Your task to perform on an android device: turn on location history Image 0: 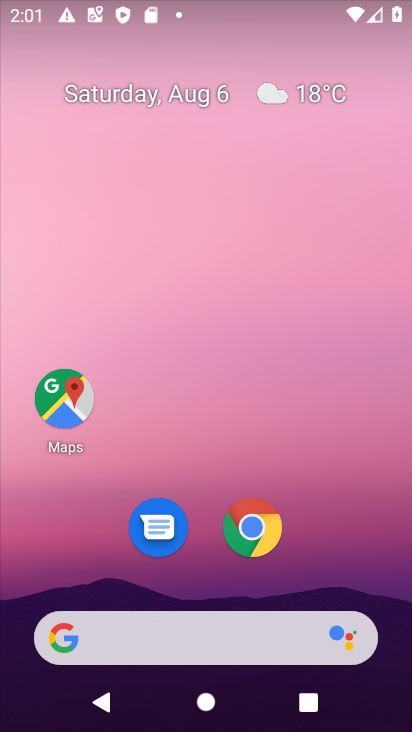
Step 0: drag from (8, 535) to (163, 147)
Your task to perform on an android device: turn on location history Image 1: 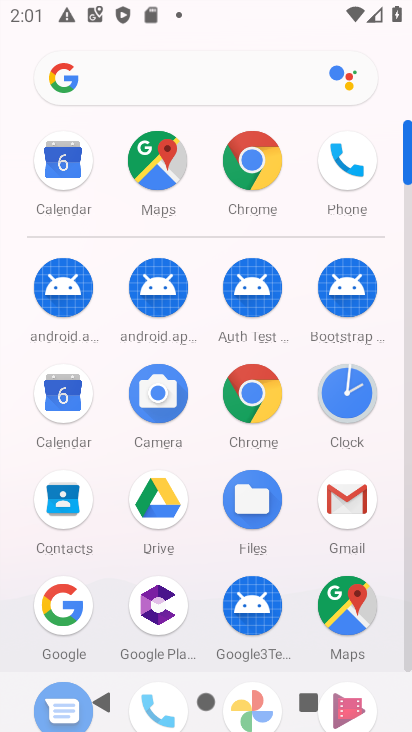
Step 1: drag from (50, 477) to (203, 141)
Your task to perform on an android device: turn on location history Image 2: 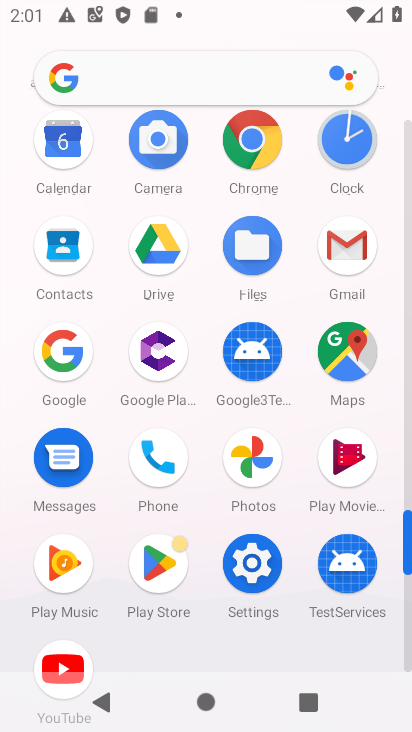
Step 2: click (241, 573)
Your task to perform on an android device: turn on location history Image 3: 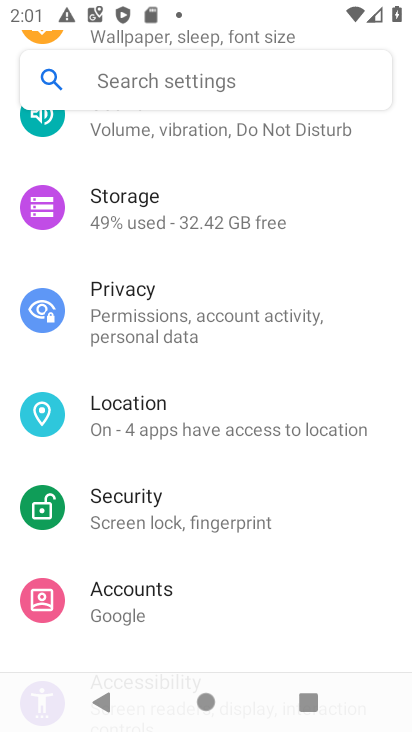
Step 3: drag from (222, 168) to (193, 638)
Your task to perform on an android device: turn on location history Image 4: 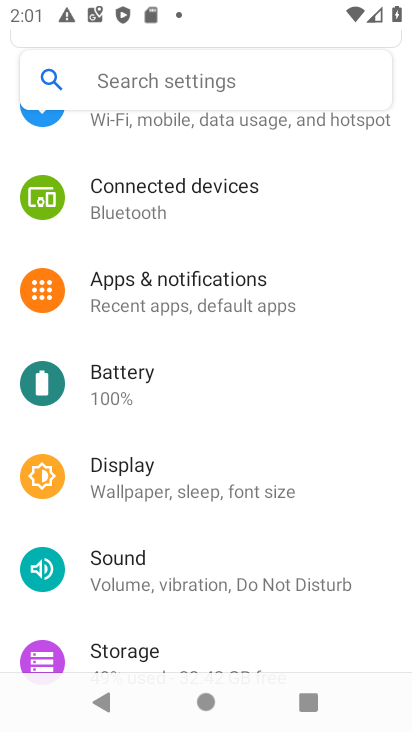
Step 4: drag from (173, 235) to (177, 589)
Your task to perform on an android device: turn on location history Image 5: 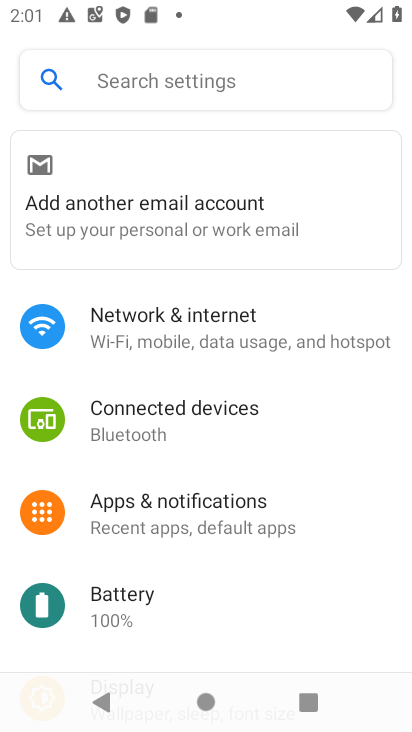
Step 5: drag from (24, 530) to (222, 89)
Your task to perform on an android device: turn on location history Image 6: 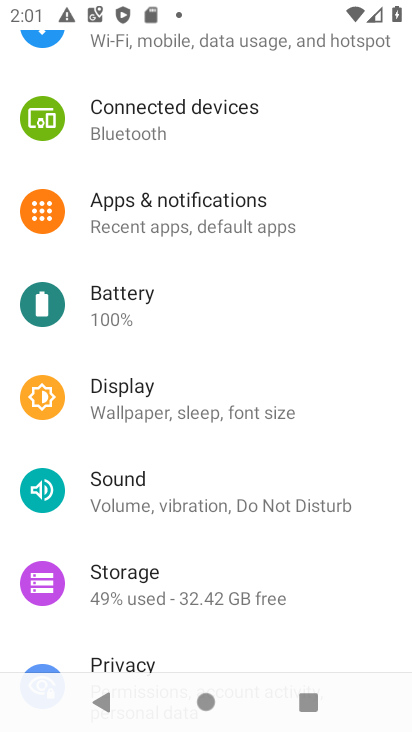
Step 6: drag from (14, 613) to (232, 200)
Your task to perform on an android device: turn on location history Image 7: 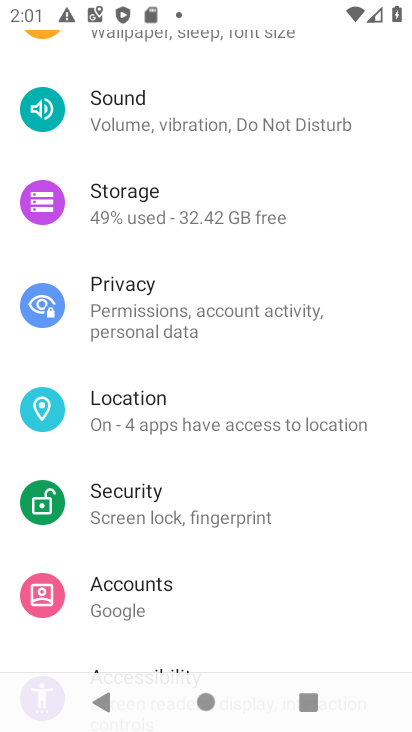
Step 7: click (210, 417)
Your task to perform on an android device: turn on location history Image 8: 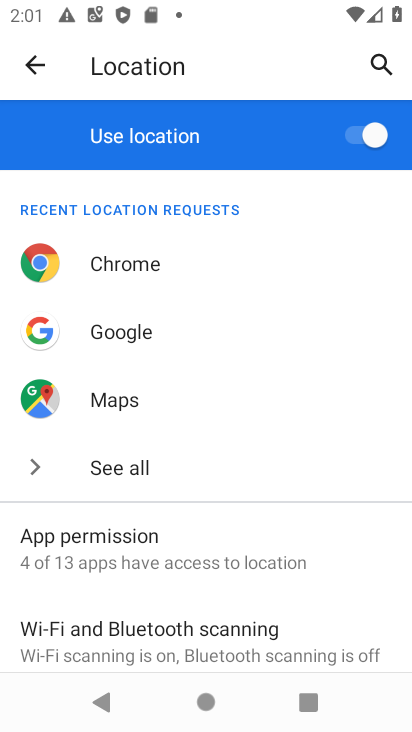
Step 8: drag from (50, 448) to (192, 165)
Your task to perform on an android device: turn on location history Image 9: 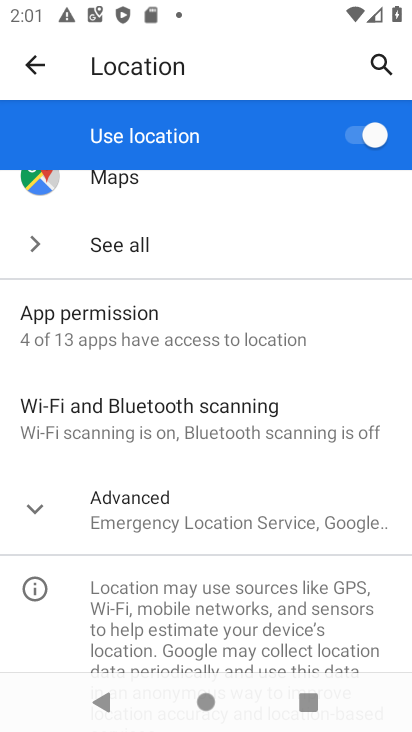
Step 9: click (197, 540)
Your task to perform on an android device: turn on location history Image 10: 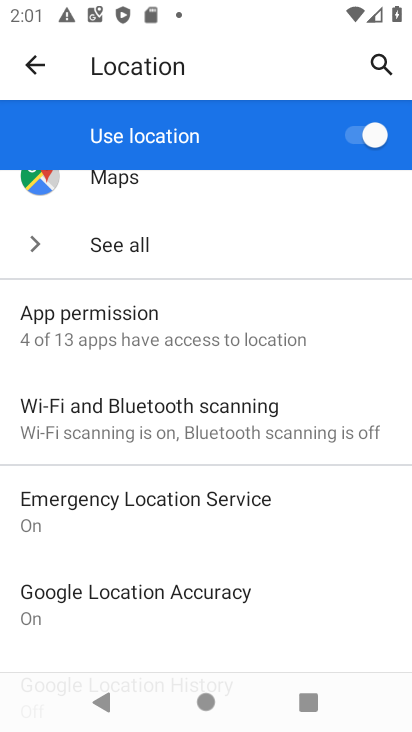
Step 10: drag from (20, 570) to (191, 282)
Your task to perform on an android device: turn on location history Image 11: 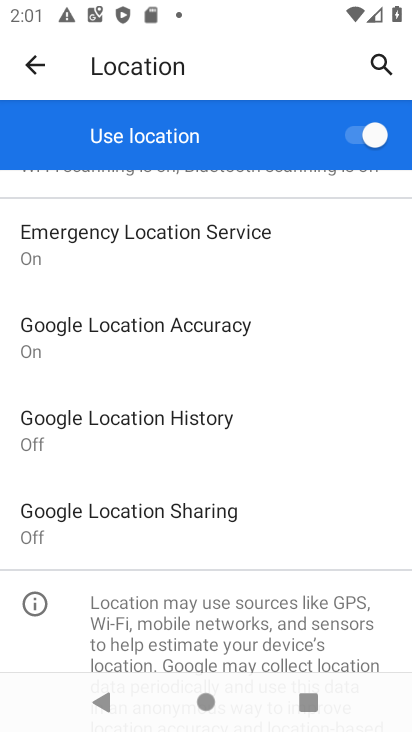
Step 11: click (183, 424)
Your task to perform on an android device: turn on location history Image 12: 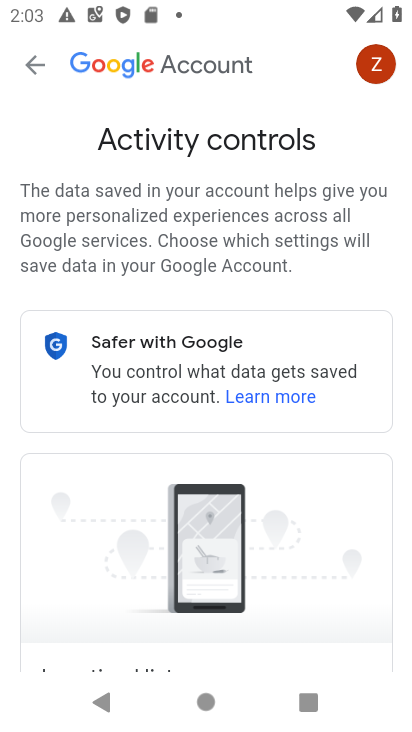
Step 12: task complete